Your task to perform on an android device: Open Google Chrome Image 0: 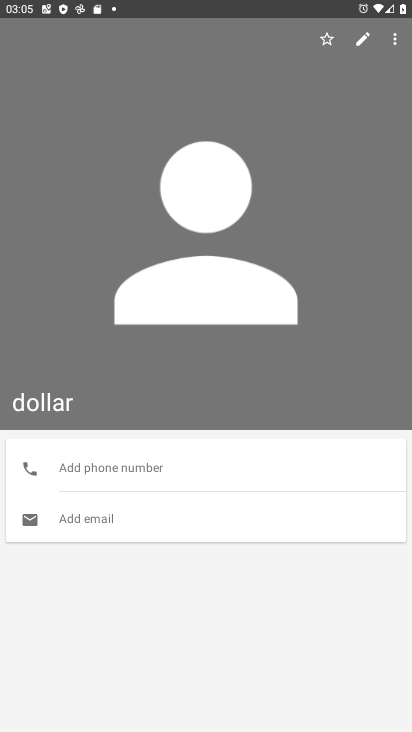
Step 0: press home button
Your task to perform on an android device: Open Google Chrome Image 1: 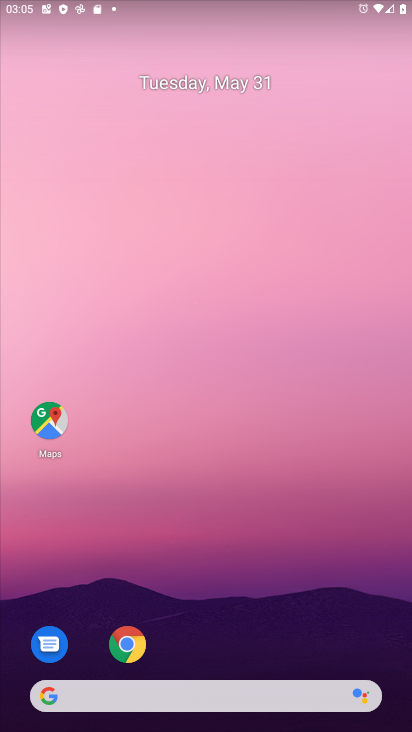
Step 1: click (132, 644)
Your task to perform on an android device: Open Google Chrome Image 2: 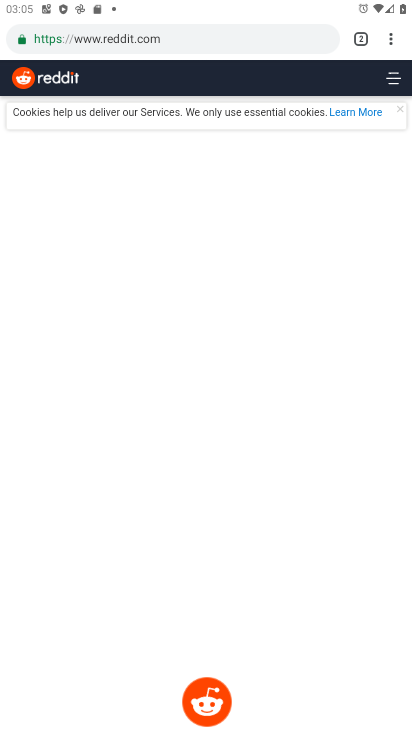
Step 2: task complete